Your task to perform on an android device: turn off improve location accuracy Image 0: 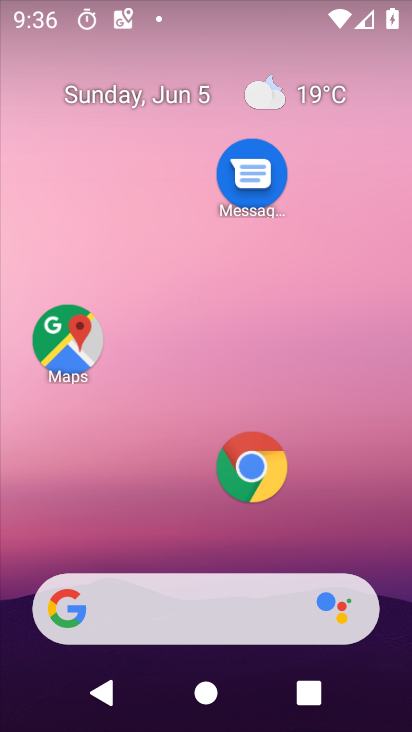
Step 0: drag from (217, 474) to (249, 216)
Your task to perform on an android device: turn off improve location accuracy Image 1: 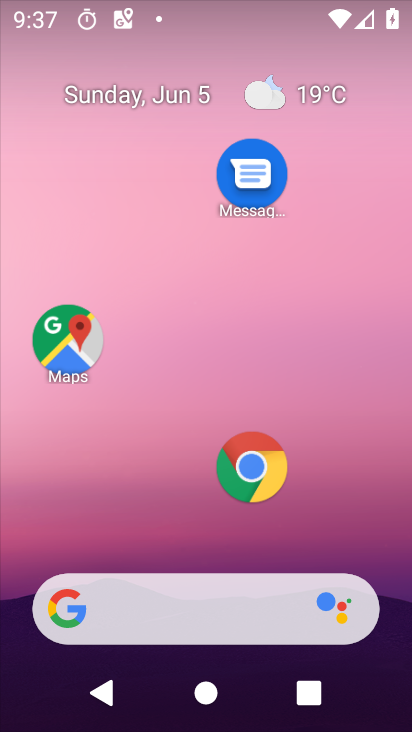
Step 1: drag from (198, 466) to (227, 83)
Your task to perform on an android device: turn off improve location accuracy Image 2: 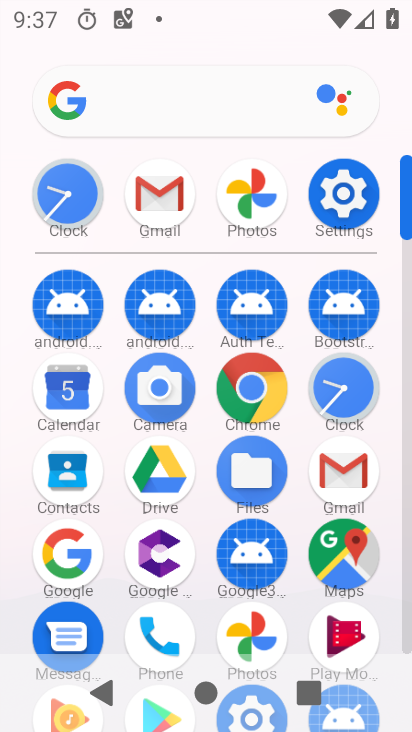
Step 2: click (346, 184)
Your task to perform on an android device: turn off improve location accuracy Image 3: 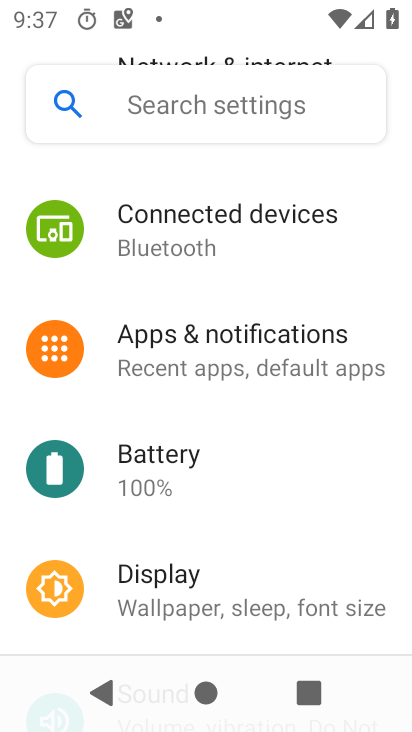
Step 3: drag from (239, 556) to (245, 385)
Your task to perform on an android device: turn off improve location accuracy Image 4: 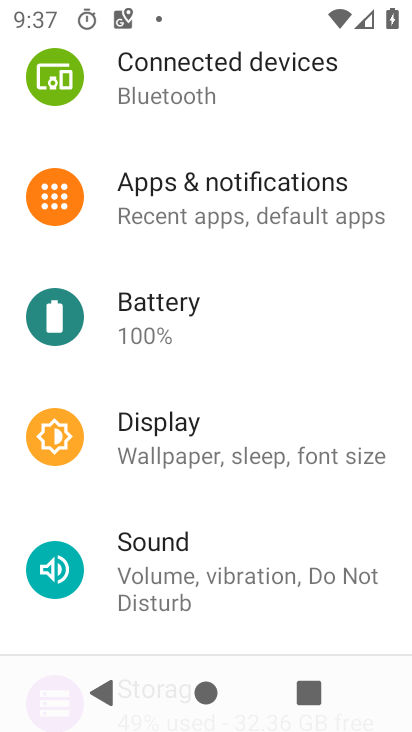
Step 4: drag from (243, 513) to (283, 314)
Your task to perform on an android device: turn off improve location accuracy Image 5: 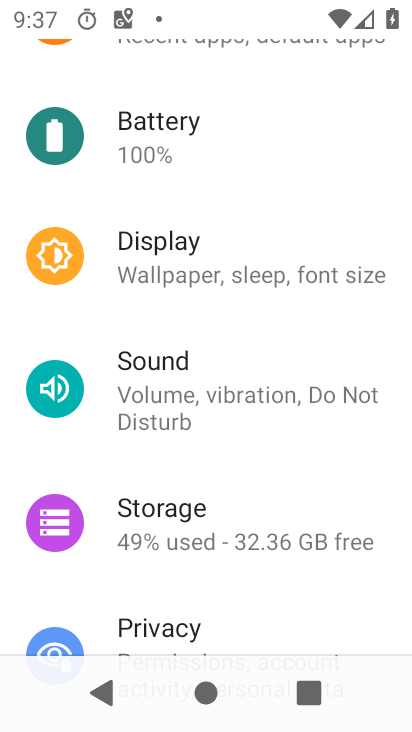
Step 5: drag from (262, 584) to (322, 106)
Your task to perform on an android device: turn off improve location accuracy Image 6: 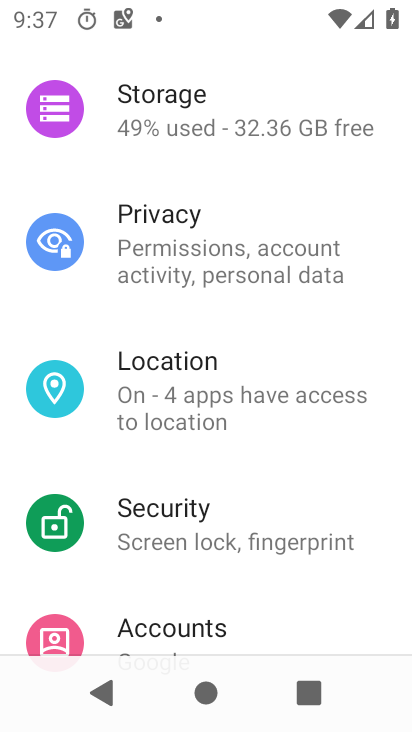
Step 6: drag from (222, 525) to (277, 146)
Your task to perform on an android device: turn off improve location accuracy Image 7: 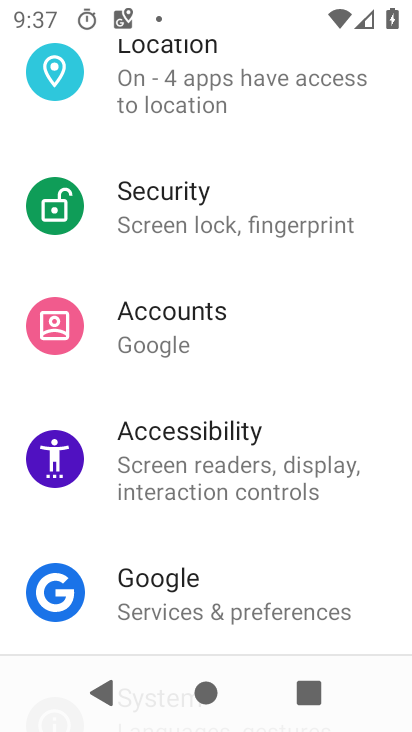
Step 7: drag from (211, 605) to (271, 199)
Your task to perform on an android device: turn off improve location accuracy Image 8: 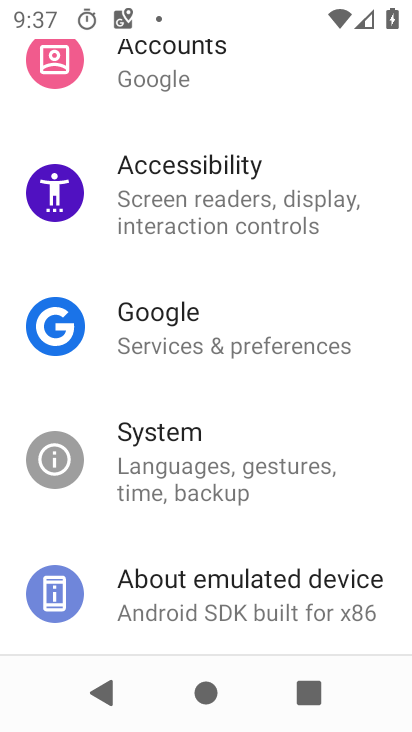
Step 8: drag from (261, 178) to (237, 669)
Your task to perform on an android device: turn off improve location accuracy Image 9: 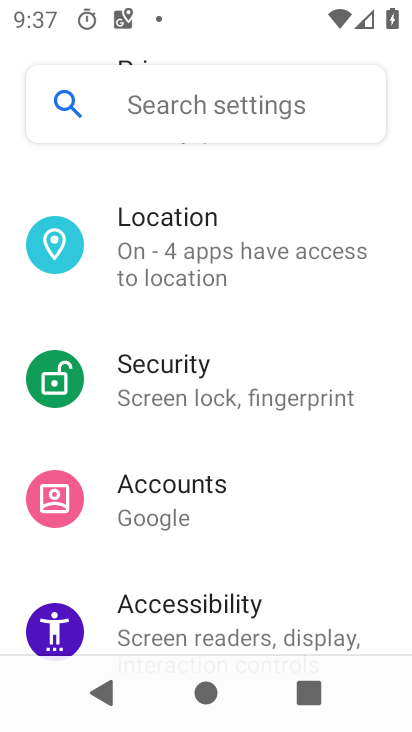
Step 9: drag from (249, 552) to (288, 205)
Your task to perform on an android device: turn off improve location accuracy Image 10: 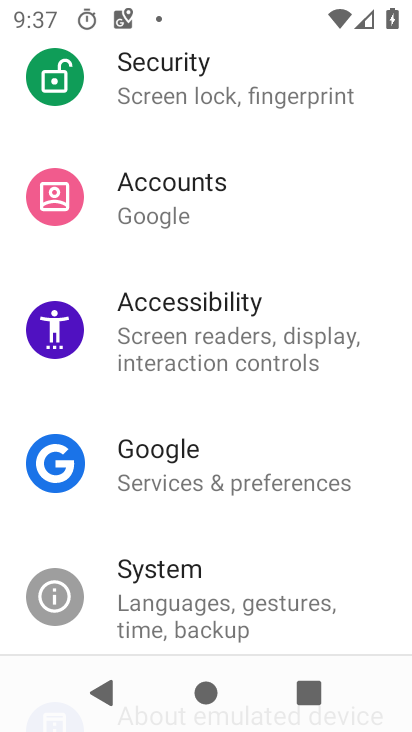
Step 10: drag from (238, 617) to (270, 237)
Your task to perform on an android device: turn off improve location accuracy Image 11: 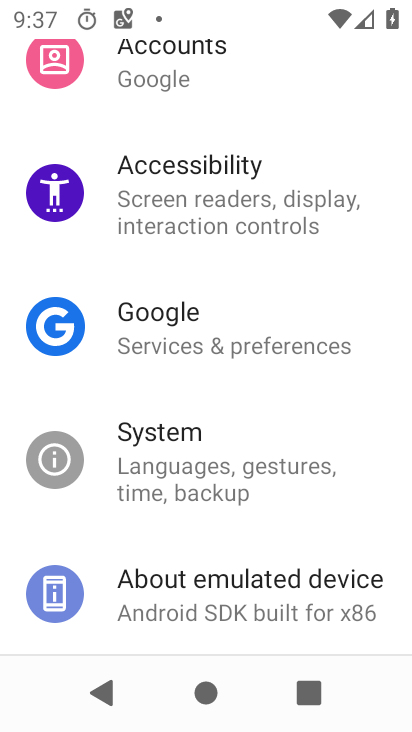
Step 11: drag from (269, 239) to (329, 728)
Your task to perform on an android device: turn off improve location accuracy Image 12: 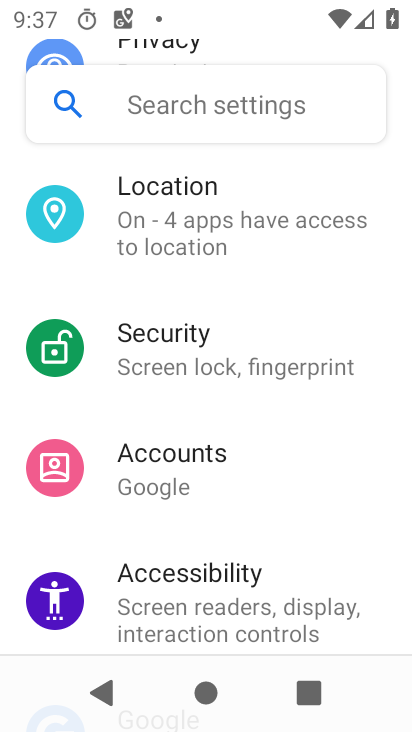
Step 12: drag from (210, 218) to (253, 596)
Your task to perform on an android device: turn off improve location accuracy Image 13: 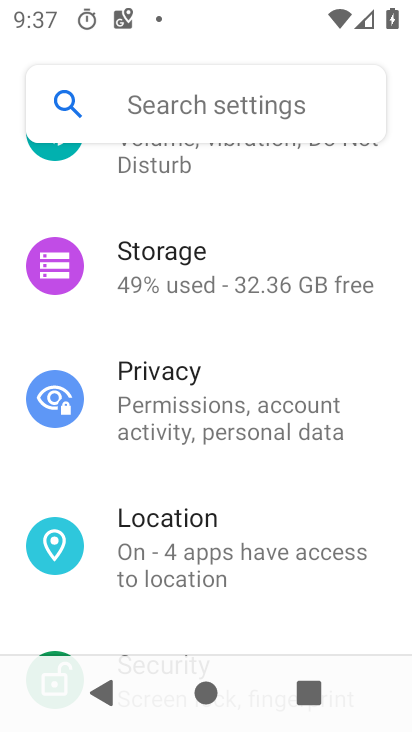
Step 13: click (215, 528)
Your task to perform on an android device: turn off improve location accuracy Image 14: 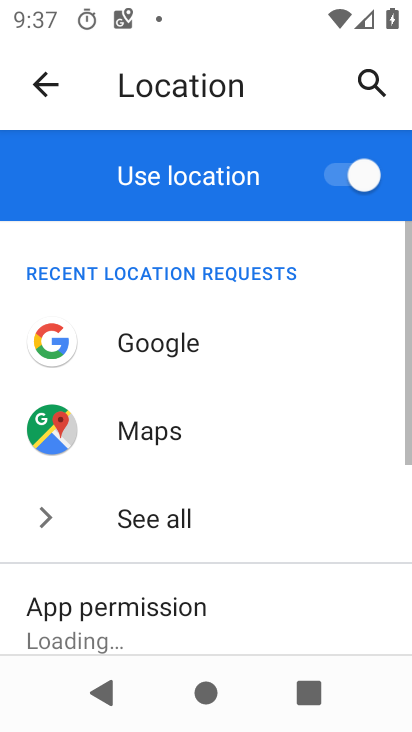
Step 14: drag from (189, 526) to (317, 181)
Your task to perform on an android device: turn off improve location accuracy Image 15: 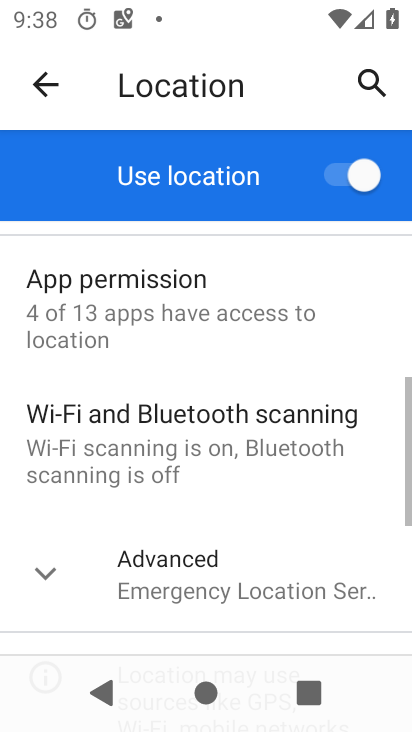
Step 15: click (146, 528)
Your task to perform on an android device: turn off improve location accuracy Image 16: 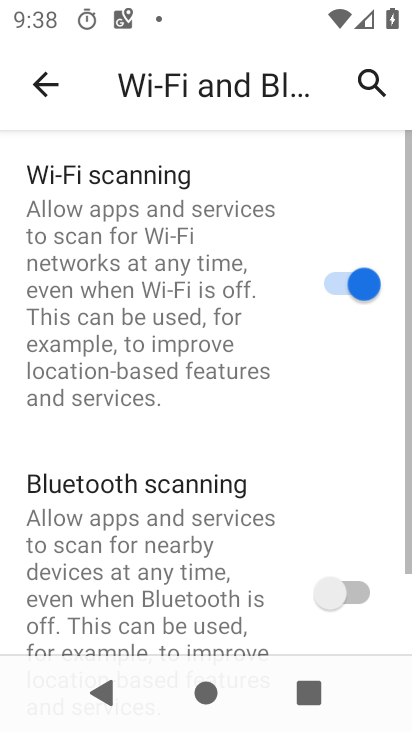
Step 16: drag from (258, 562) to (338, 108)
Your task to perform on an android device: turn off improve location accuracy Image 17: 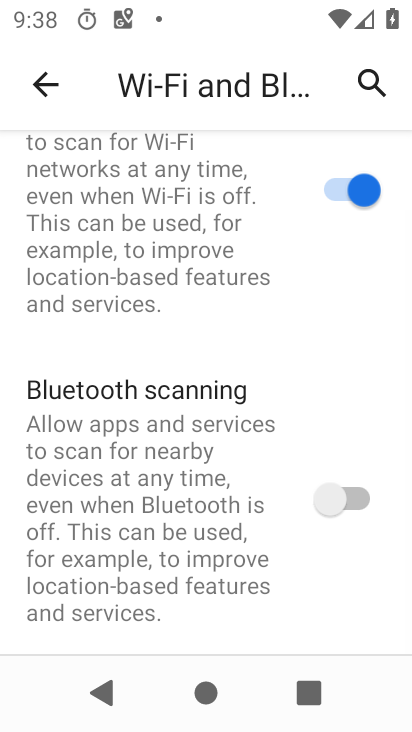
Step 17: click (50, 85)
Your task to perform on an android device: turn off improve location accuracy Image 18: 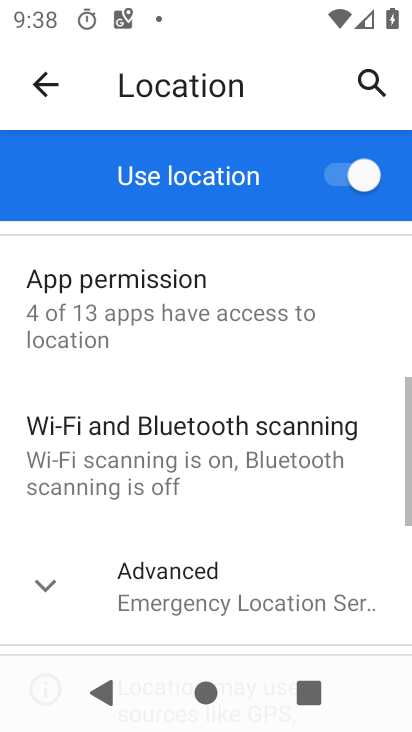
Step 18: click (180, 578)
Your task to perform on an android device: turn off improve location accuracy Image 19: 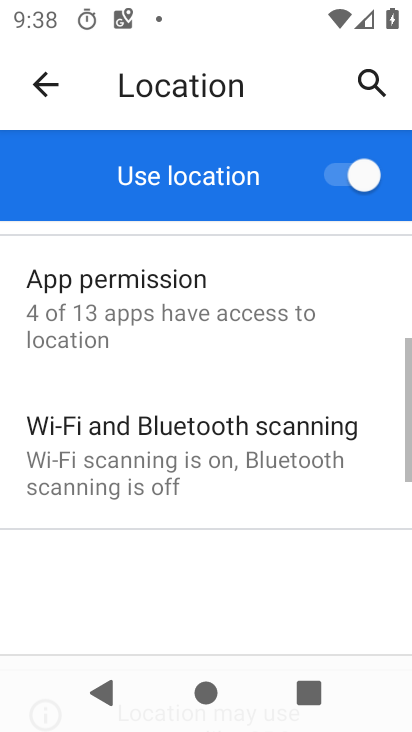
Step 19: drag from (187, 535) to (245, 78)
Your task to perform on an android device: turn off improve location accuracy Image 20: 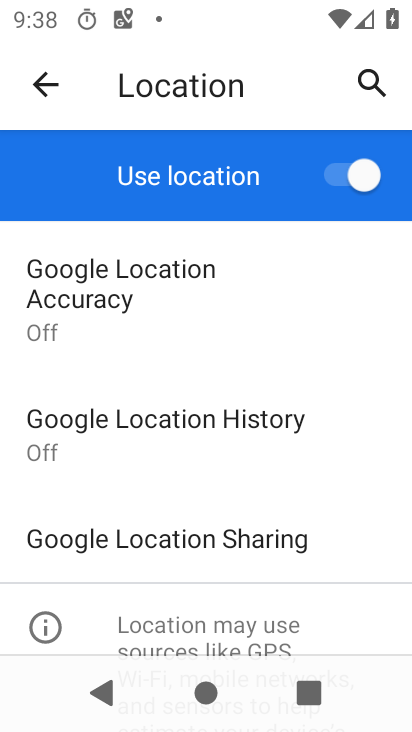
Step 20: drag from (216, 503) to (235, 348)
Your task to perform on an android device: turn off improve location accuracy Image 21: 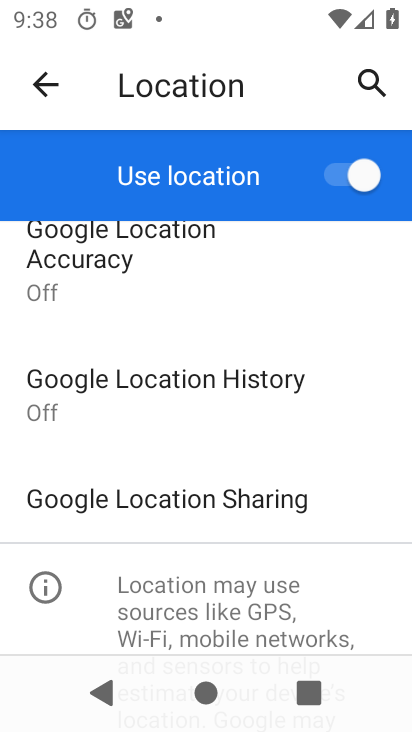
Step 21: drag from (250, 323) to (265, 547)
Your task to perform on an android device: turn off improve location accuracy Image 22: 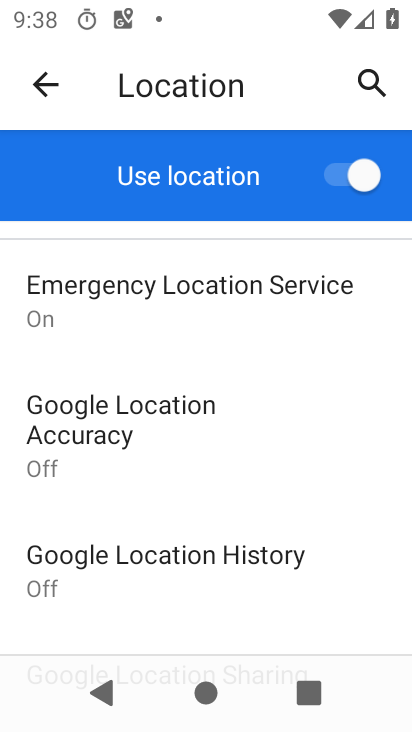
Step 22: click (134, 431)
Your task to perform on an android device: turn off improve location accuracy Image 23: 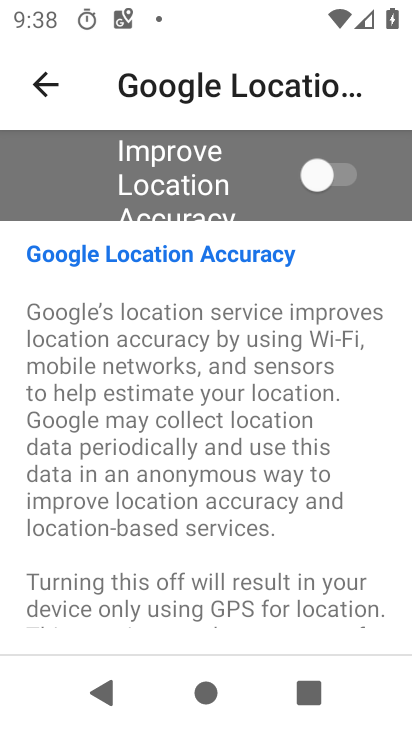
Step 23: task complete